Your task to perform on an android device: turn off javascript in the chrome app Image 0: 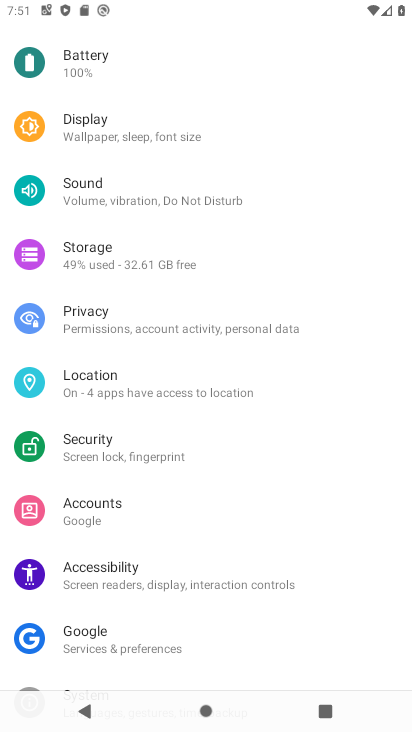
Step 0: press back button
Your task to perform on an android device: turn off javascript in the chrome app Image 1: 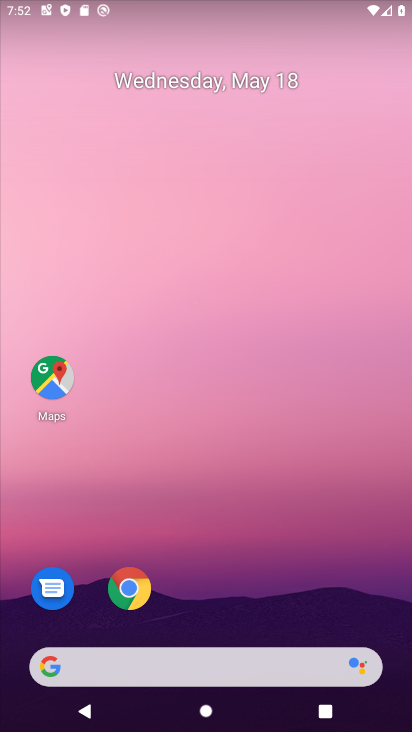
Step 1: drag from (259, 542) to (212, 18)
Your task to perform on an android device: turn off javascript in the chrome app Image 2: 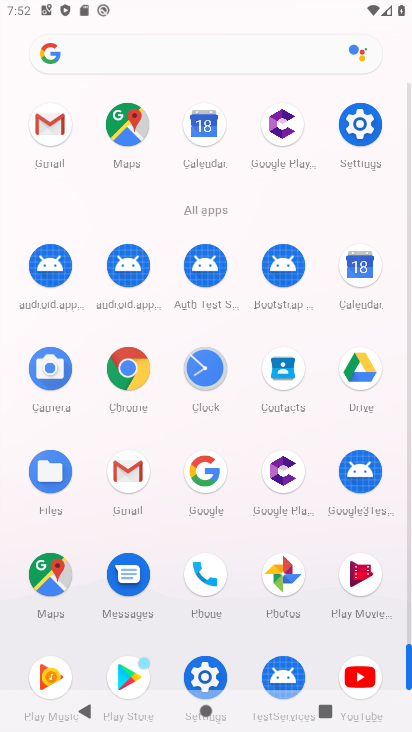
Step 2: click (128, 369)
Your task to perform on an android device: turn off javascript in the chrome app Image 3: 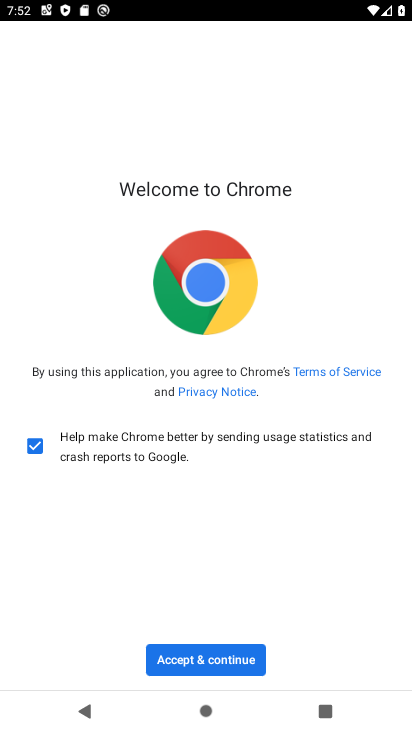
Step 3: click (203, 658)
Your task to perform on an android device: turn off javascript in the chrome app Image 4: 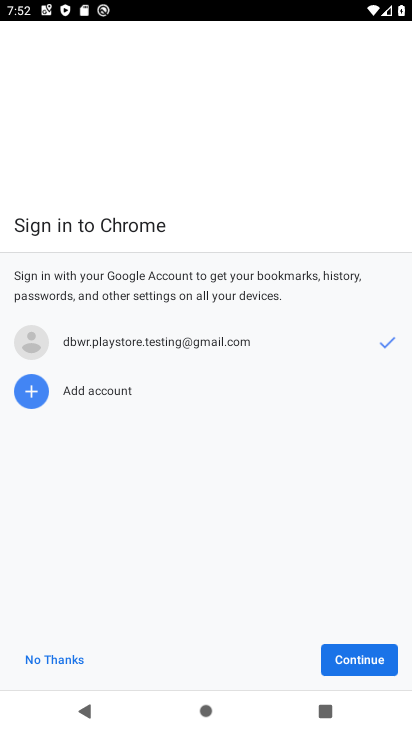
Step 4: click (380, 659)
Your task to perform on an android device: turn off javascript in the chrome app Image 5: 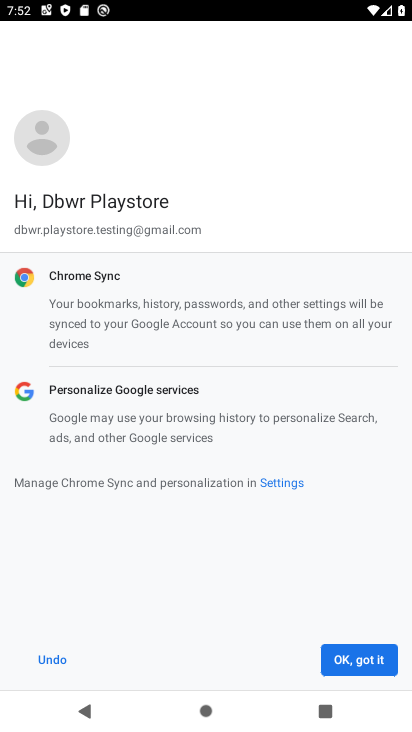
Step 5: click (379, 658)
Your task to perform on an android device: turn off javascript in the chrome app Image 6: 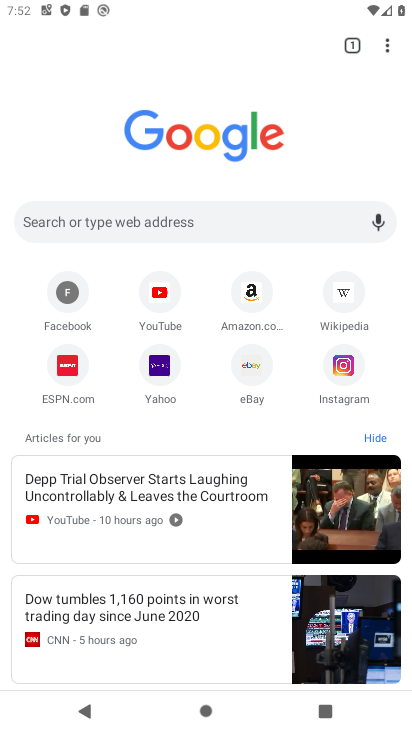
Step 6: drag from (386, 46) to (232, 377)
Your task to perform on an android device: turn off javascript in the chrome app Image 7: 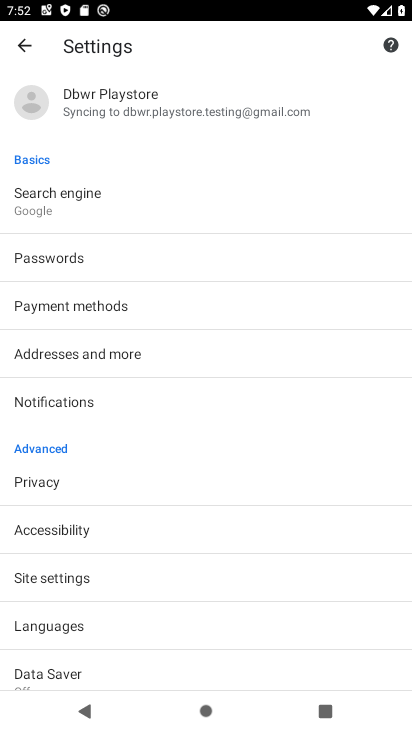
Step 7: click (131, 569)
Your task to perform on an android device: turn off javascript in the chrome app Image 8: 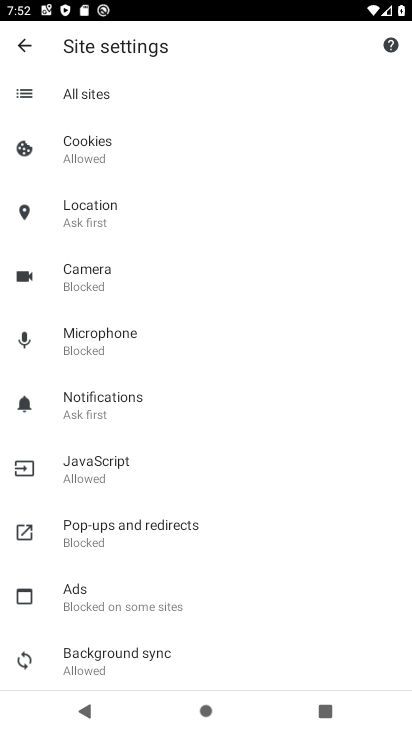
Step 8: click (113, 462)
Your task to perform on an android device: turn off javascript in the chrome app Image 9: 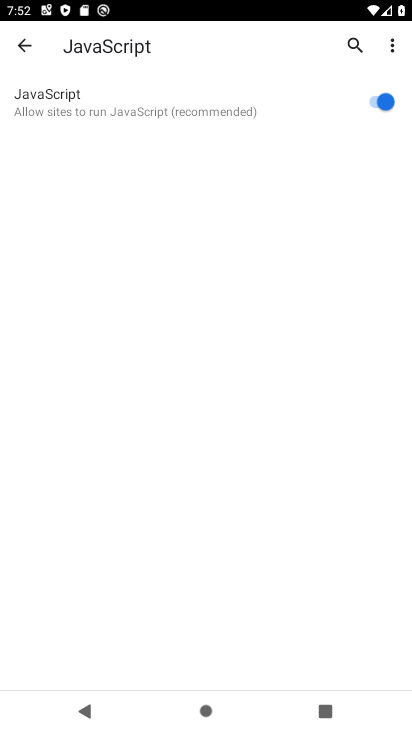
Step 9: click (375, 98)
Your task to perform on an android device: turn off javascript in the chrome app Image 10: 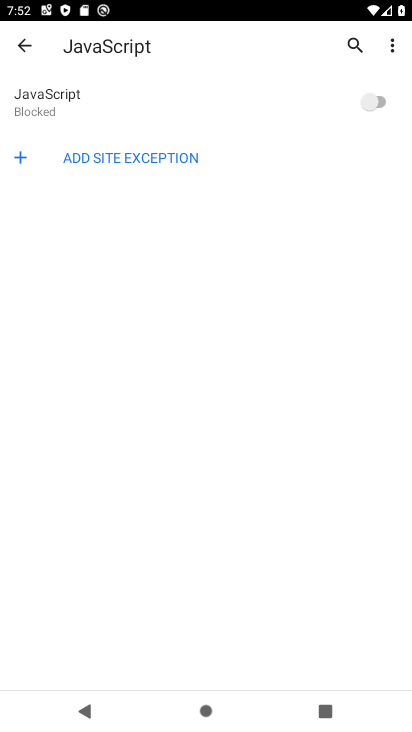
Step 10: task complete